Your task to perform on an android device: When is my next appointment? Image 0: 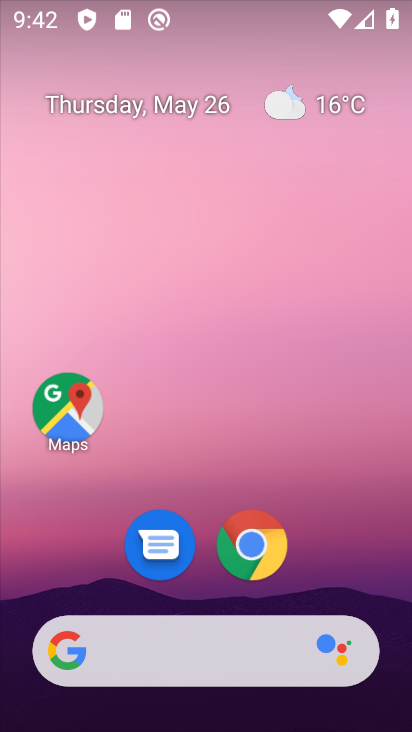
Step 0: drag from (331, 418) to (330, 215)
Your task to perform on an android device: When is my next appointment? Image 1: 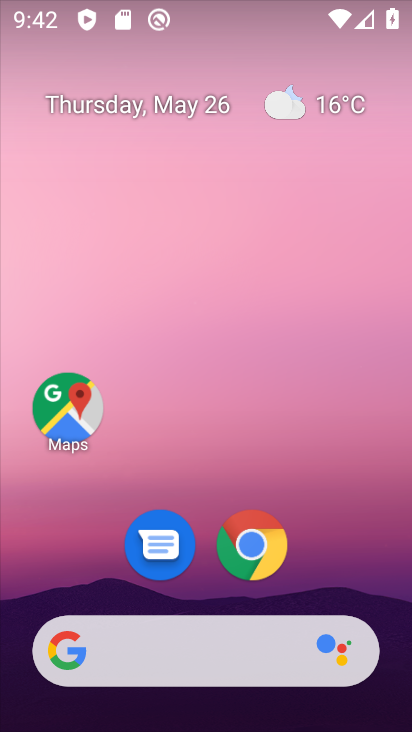
Step 1: drag from (335, 544) to (345, 99)
Your task to perform on an android device: When is my next appointment? Image 2: 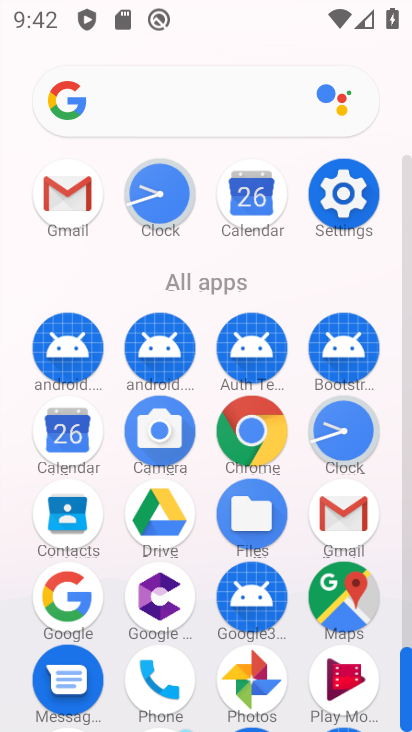
Step 2: click (250, 202)
Your task to perform on an android device: When is my next appointment? Image 3: 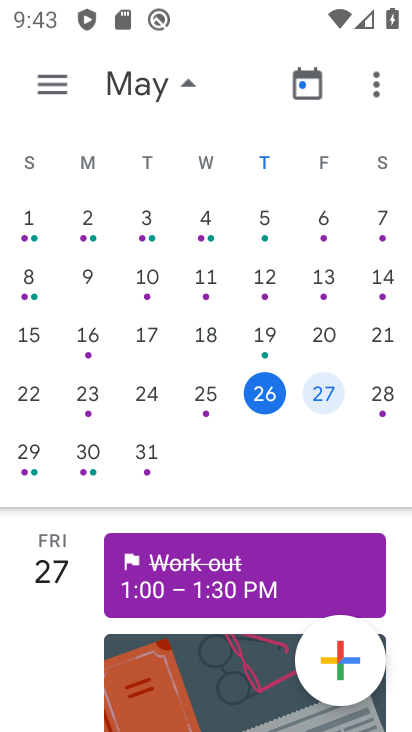
Step 3: click (82, 455)
Your task to perform on an android device: When is my next appointment? Image 4: 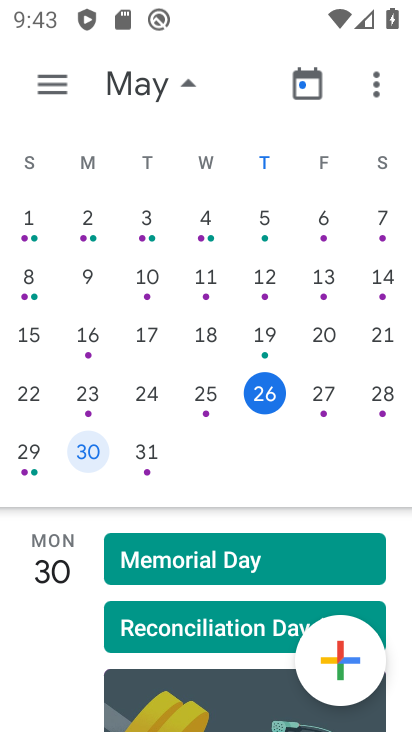
Step 4: task complete